Your task to perform on an android device: Search for the best selling jewelry on Etsy. Image 0: 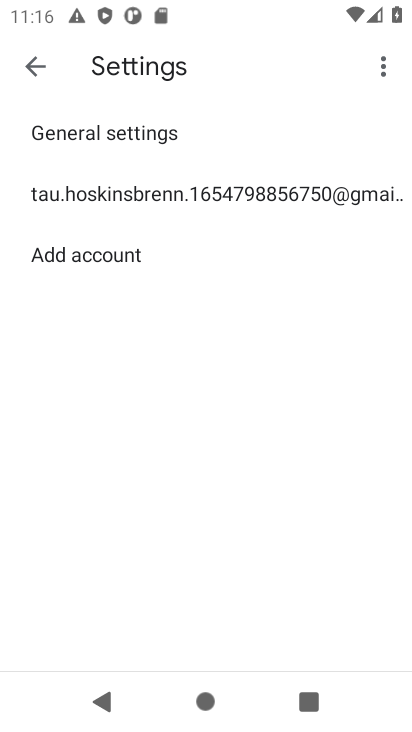
Step 0: press home button
Your task to perform on an android device: Search for the best selling jewelry on Etsy. Image 1: 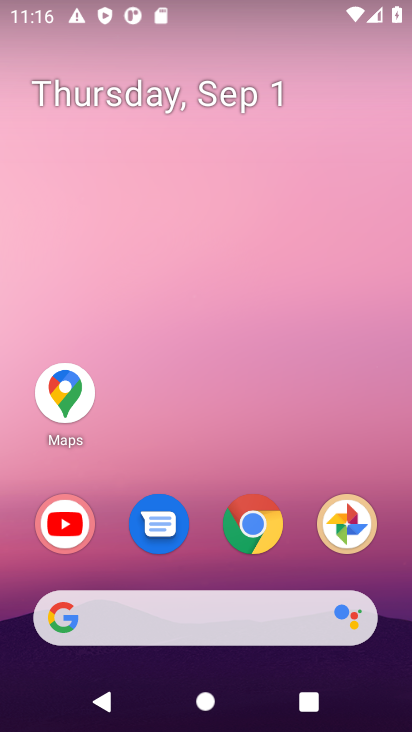
Step 1: click (253, 523)
Your task to perform on an android device: Search for the best selling jewelry on Etsy. Image 2: 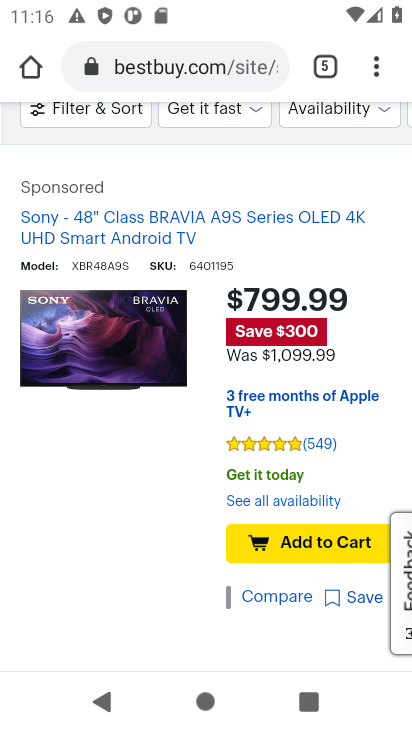
Step 2: click (330, 64)
Your task to perform on an android device: Search for the best selling jewelry on Etsy. Image 3: 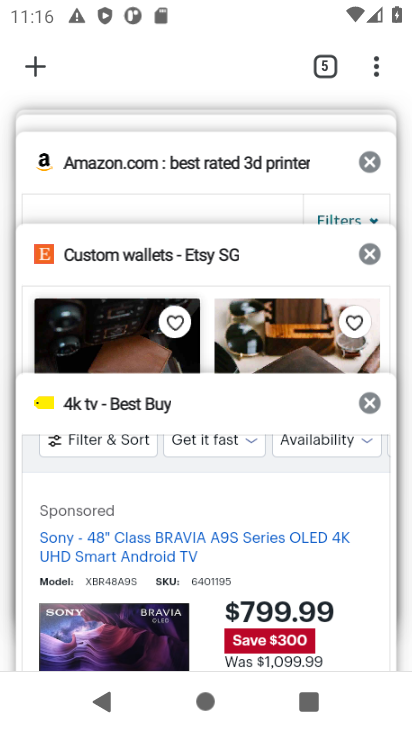
Step 3: click (215, 272)
Your task to perform on an android device: Search for the best selling jewelry on Etsy. Image 4: 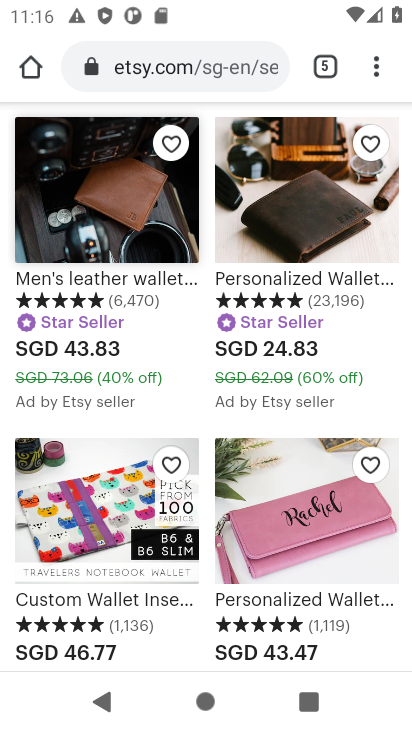
Step 4: drag from (266, 186) to (322, 623)
Your task to perform on an android device: Search for the best selling jewelry on Etsy. Image 5: 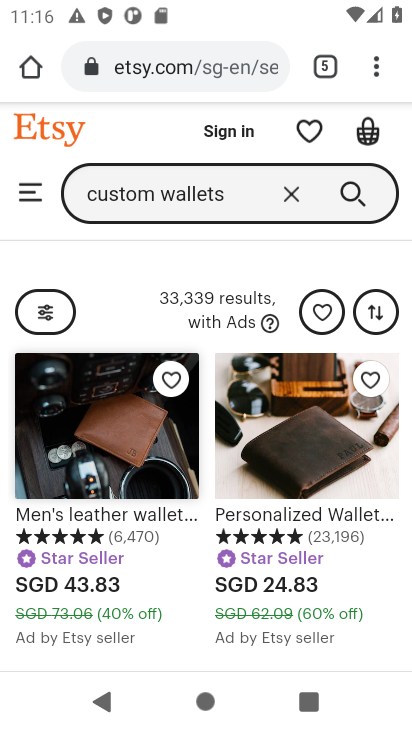
Step 5: click (291, 194)
Your task to perform on an android device: Search for the best selling jewelry on Etsy. Image 6: 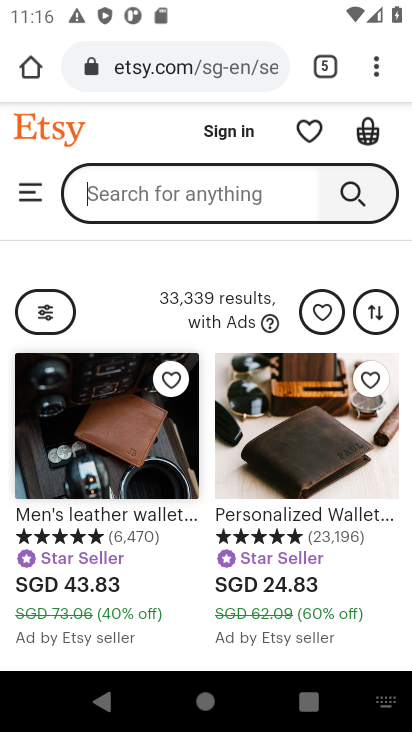
Step 6: click (243, 186)
Your task to perform on an android device: Search for the best selling jewelry on Etsy. Image 7: 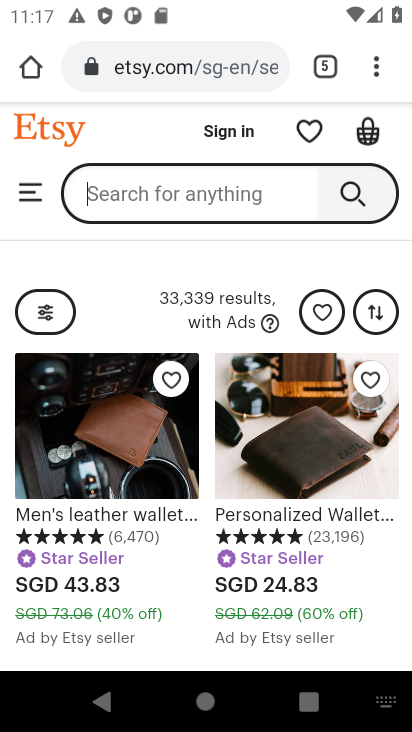
Step 7: type "best selling jewerly"
Your task to perform on an android device: Search for the best selling jewelry on Etsy. Image 8: 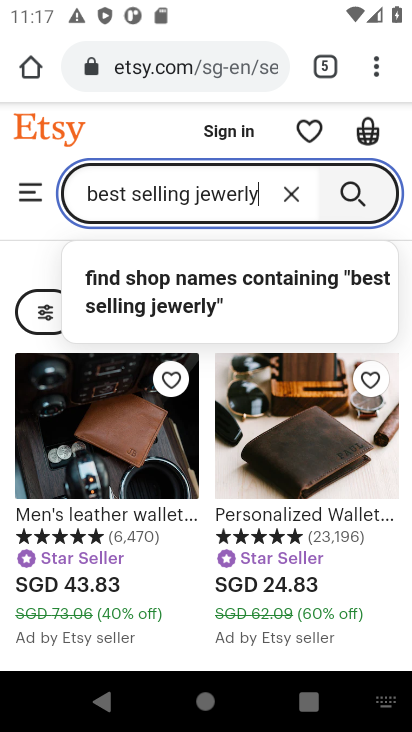
Step 8: click (356, 192)
Your task to perform on an android device: Search for the best selling jewelry on Etsy. Image 9: 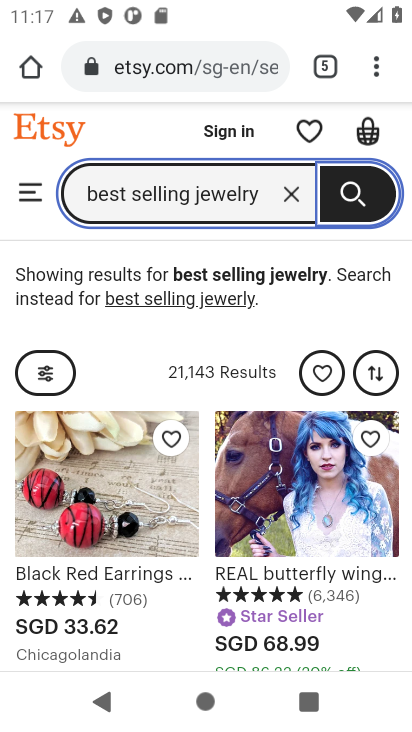
Step 9: click (378, 377)
Your task to perform on an android device: Search for the best selling jewelry on Etsy. Image 10: 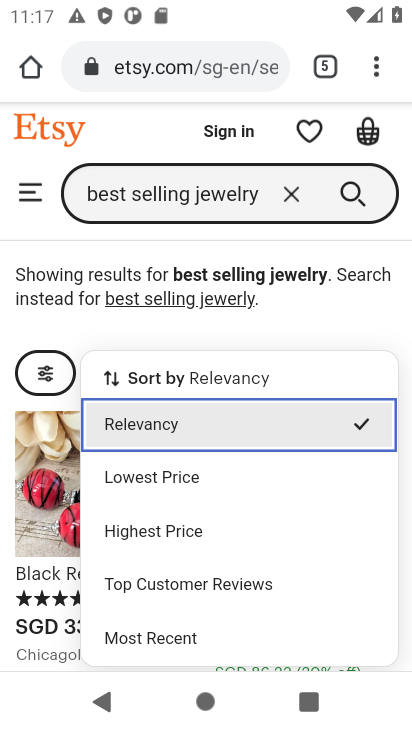
Step 10: drag from (211, 610) to (179, 443)
Your task to perform on an android device: Search for the best selling jewelry on Etsy. Image 11: 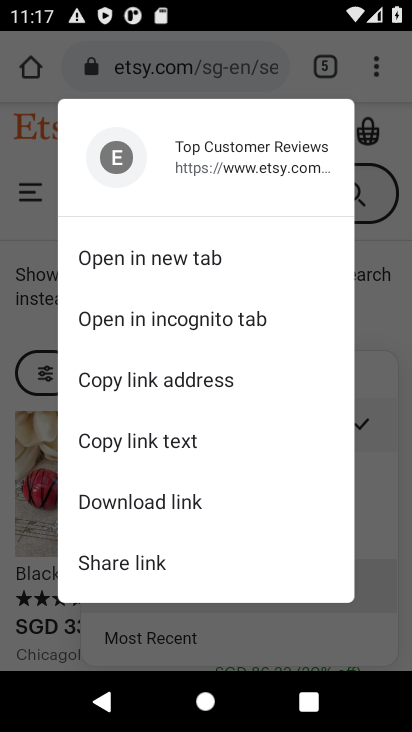
Step 11: click (369, 421)
Your task to perform on an android device: Search for the best selling jewelry on Etsy. Image 12: 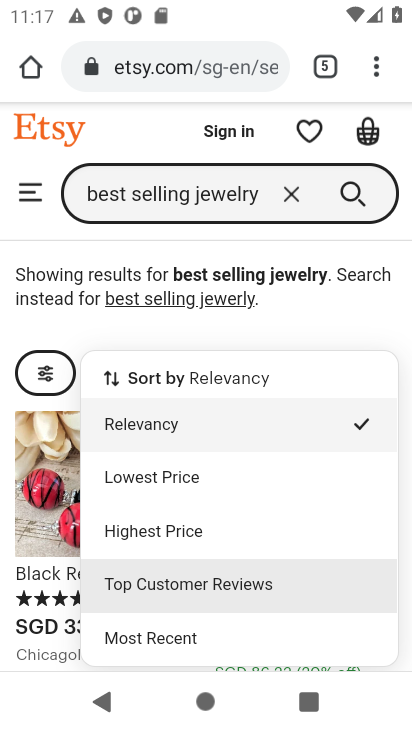
Step 12: click (180, 582)
Your task to perform on an android device: Search for the best selling jewelry on Etsy. Image 13: 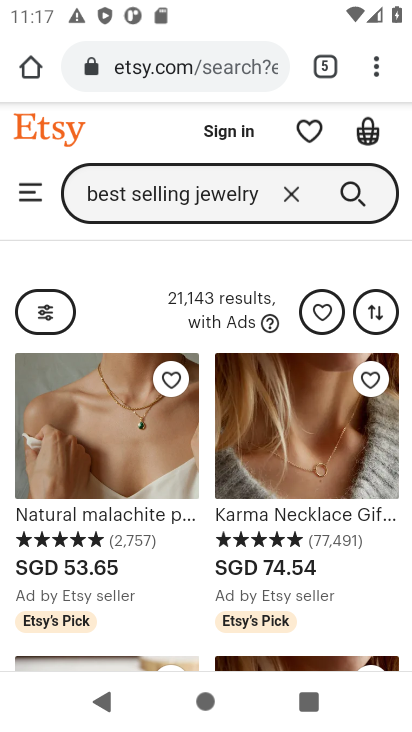
Step 13: task complete